Your task to perform on an android device: What's a good restaurant in Los Angeles? Image 0: 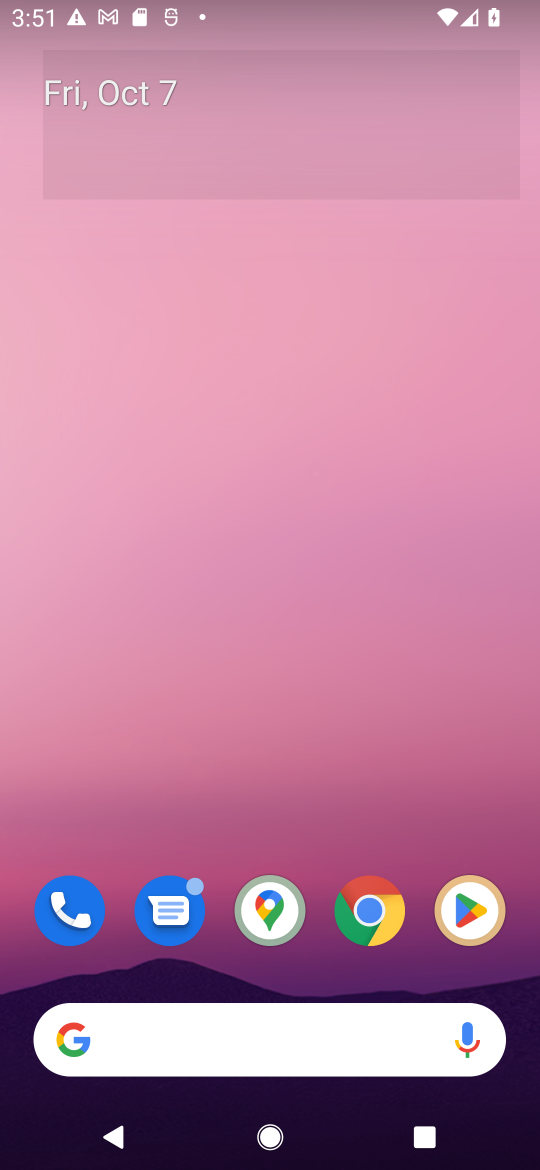
Step 0: drag from (252, 965) to (273, 259)
Your task to perform on an android device: What's a good restaurant in Los Angeles? Image 1: 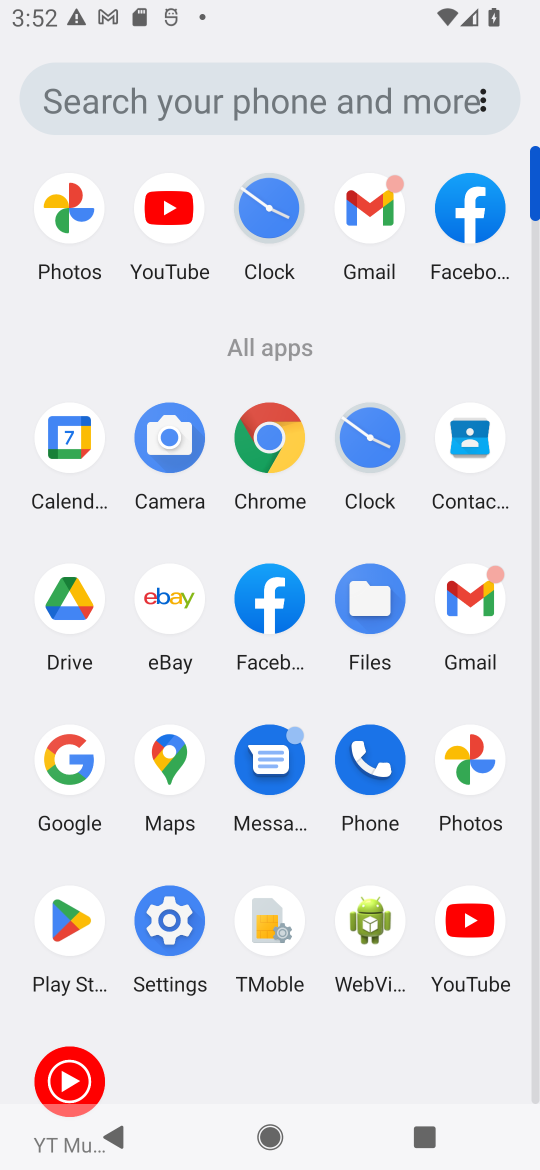
Step 1: click (164, 776)
Your task to perform on an android device: What's a good restaurant in Los Angeles? Image 2: 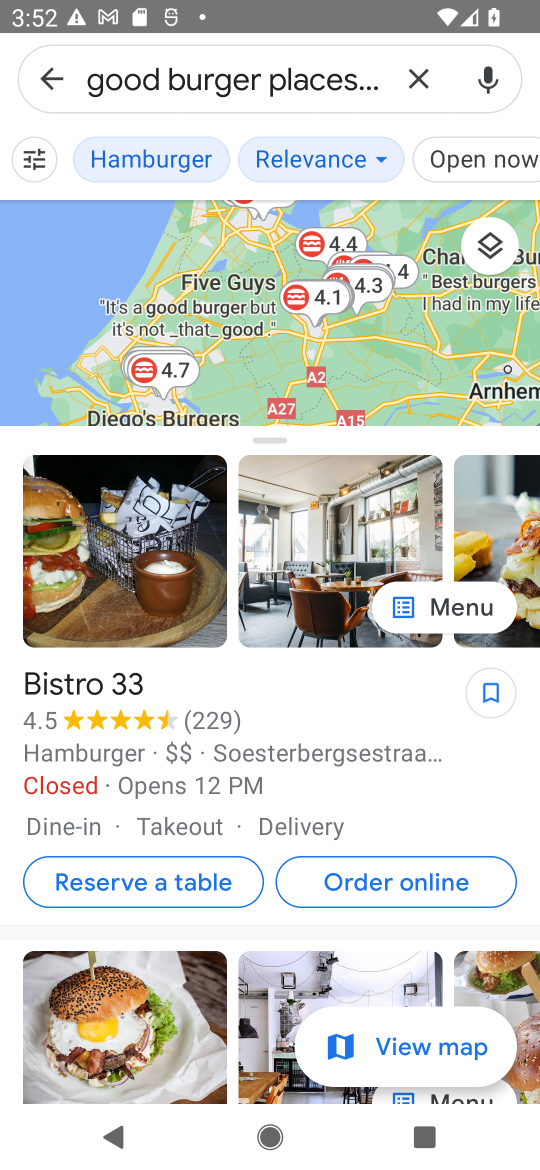
Step 2: click (50, 71)
Your task to perform on an android device: What's a good restaurant in Los Angeles? Image 3: 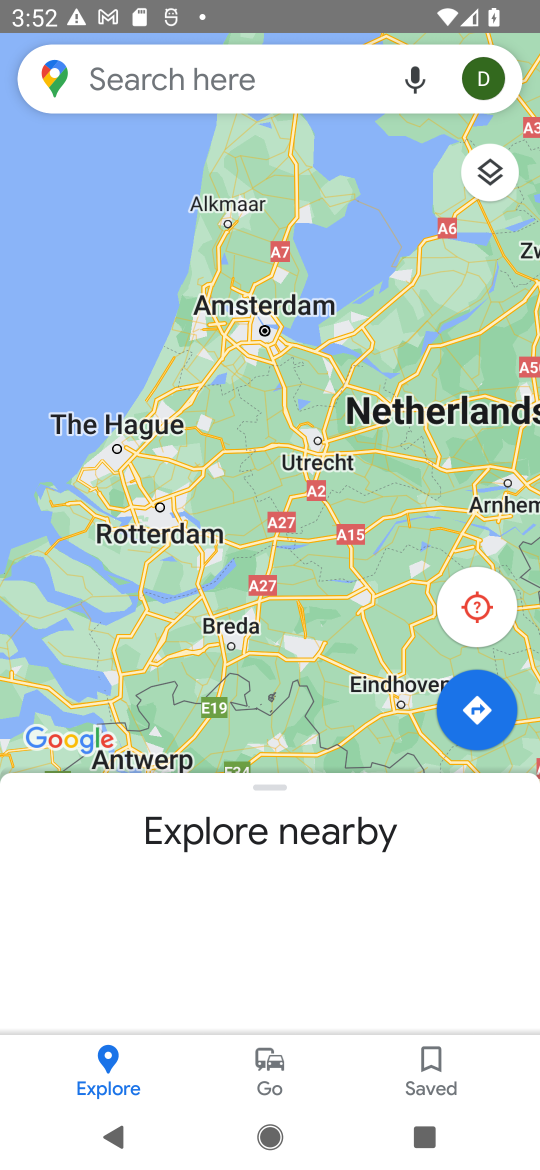
Step 3: click (314, 79)
Your task to perform on an android device: What's a good restaurant in Los Angeles? Image 4: 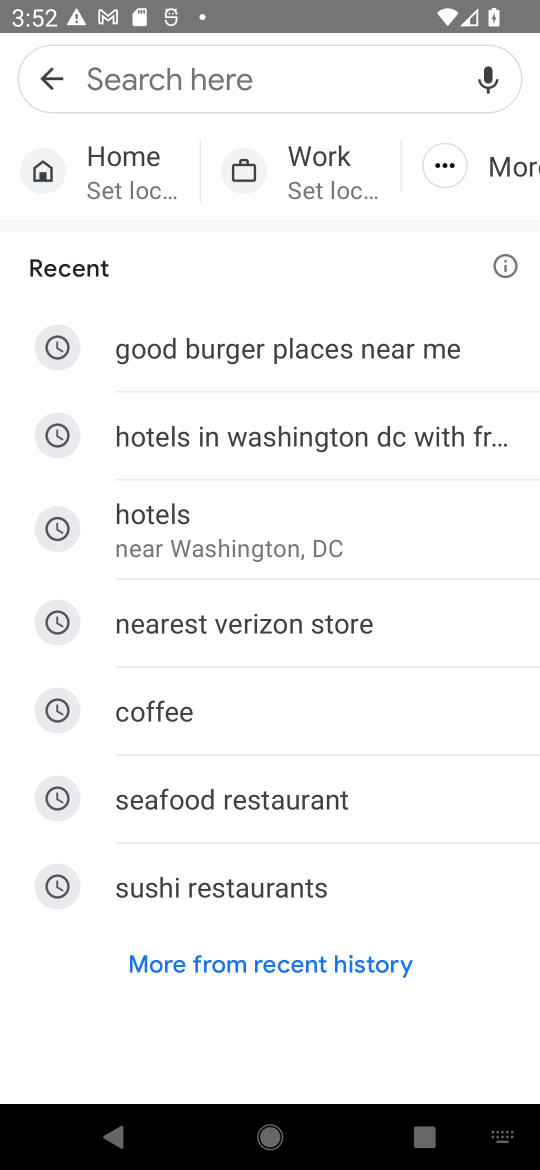
Step 4: type "good restaurant in Los Angeles"
Your task to perform on an android device: What's a good restaurant in Los Angeles? Image 5: 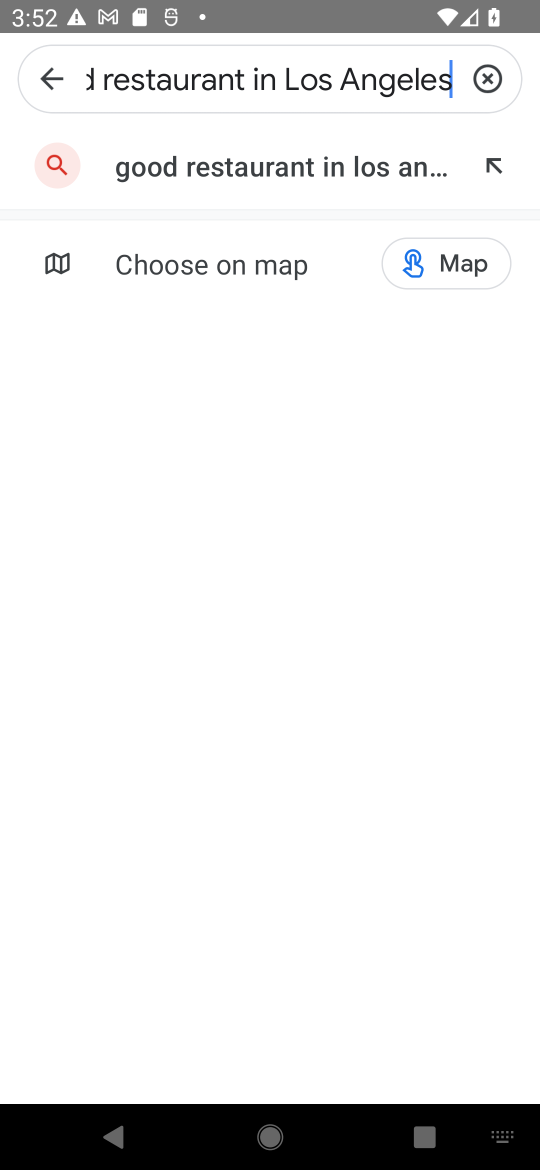
Step 5: click (291, 171)
Your task to perform on an android device: What's a good restaurant in Los Angeles? Image 6: 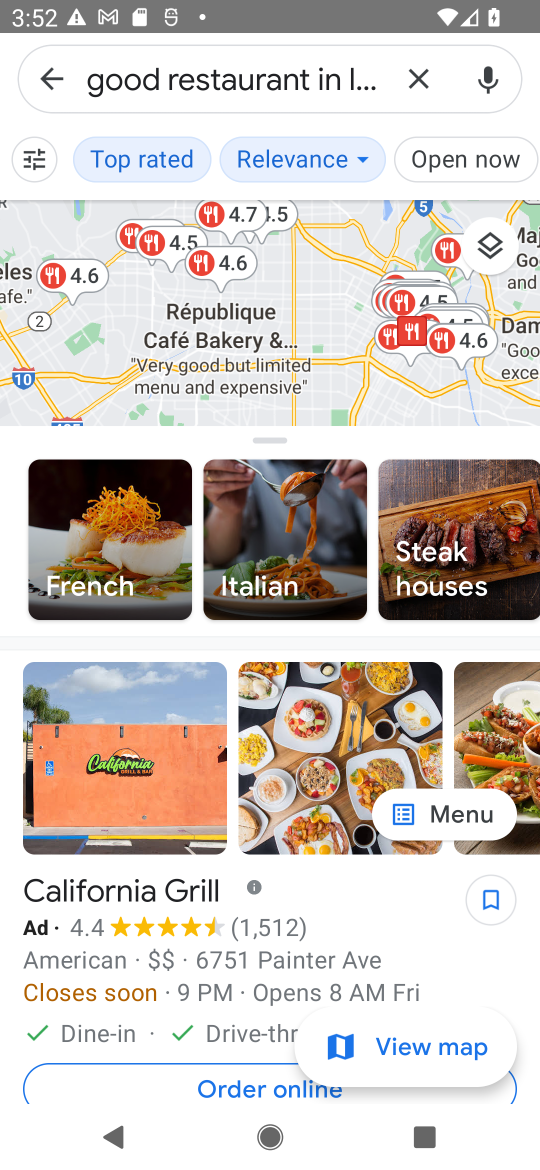
Step 6: drag from (277, 819) to (414, 130)
Your task to perform on an android device: What's a good restaurant in Los Angeles? Image 7: 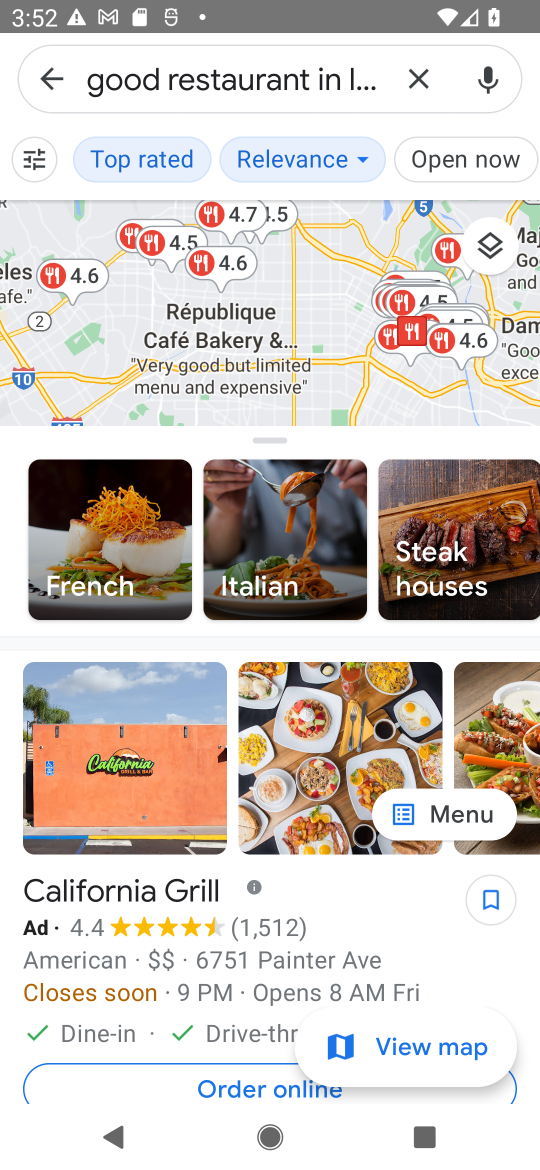
Step 7: click (274, 424)
Your task to perform on an android device: What's a good restaurant in Los Angeles? Image 8: 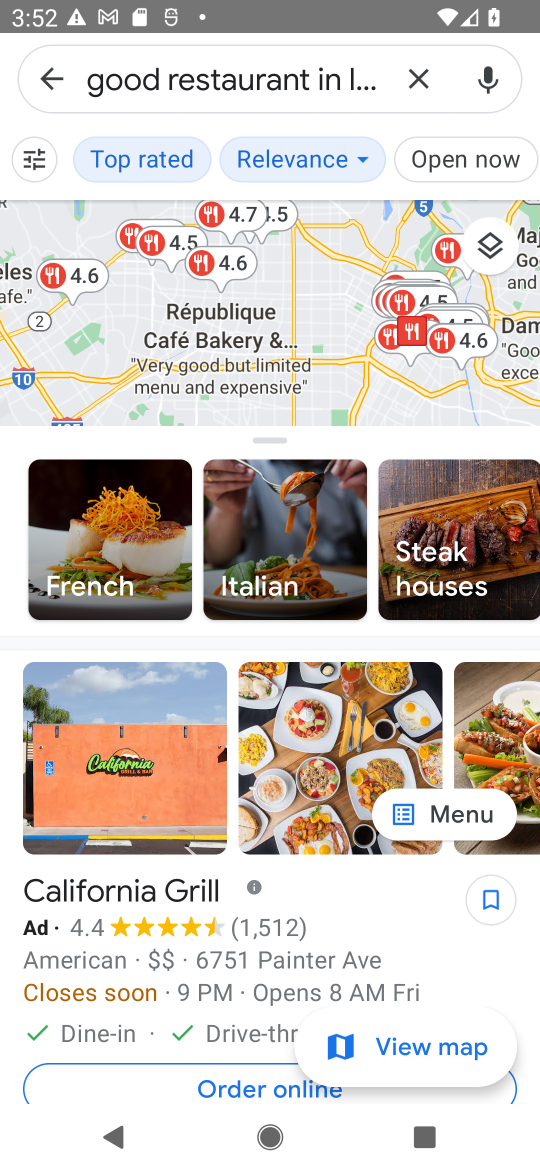
Step 8: task complete